Your task to perform on an android device: open app "Speedtest by Ookla" (install if not already installed) and go to login screen Image 0: 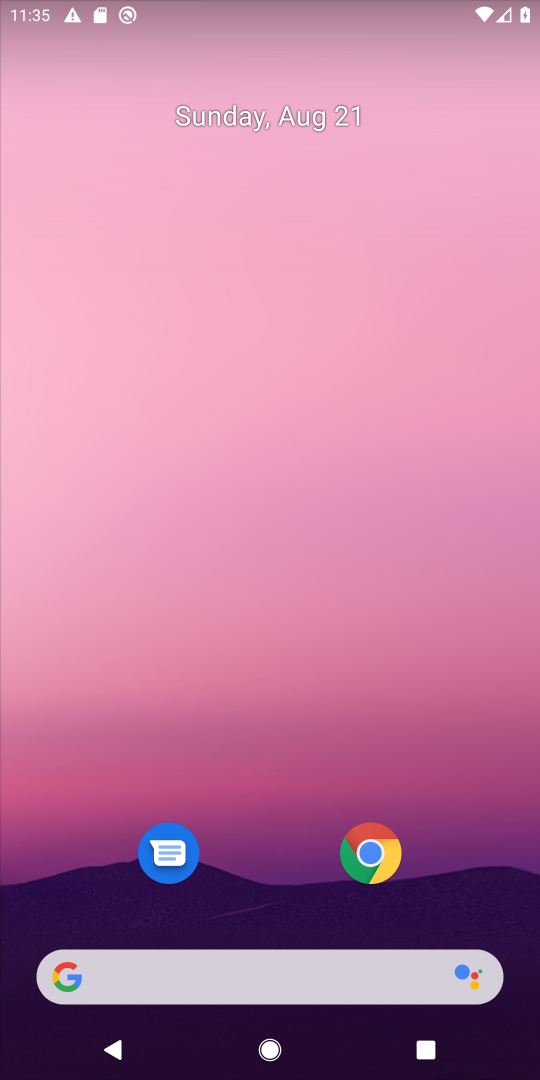
Step 0: drag from (274, 865) to (283, 236)
Your task to perform on an android device: open app "Speedtest by Ookla" (install if not already installed) and go to login screen Image 1: 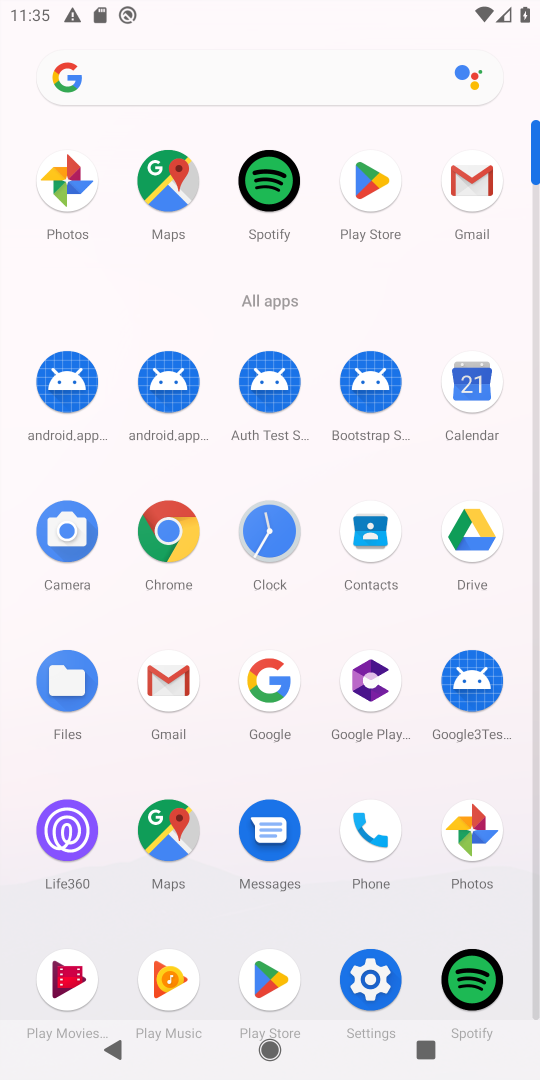
Step 1: click (361, 172)
Your task to perform on an android device: open app "Speedtest by Ookla" (install if not already installed) and go to login screen Image 2: 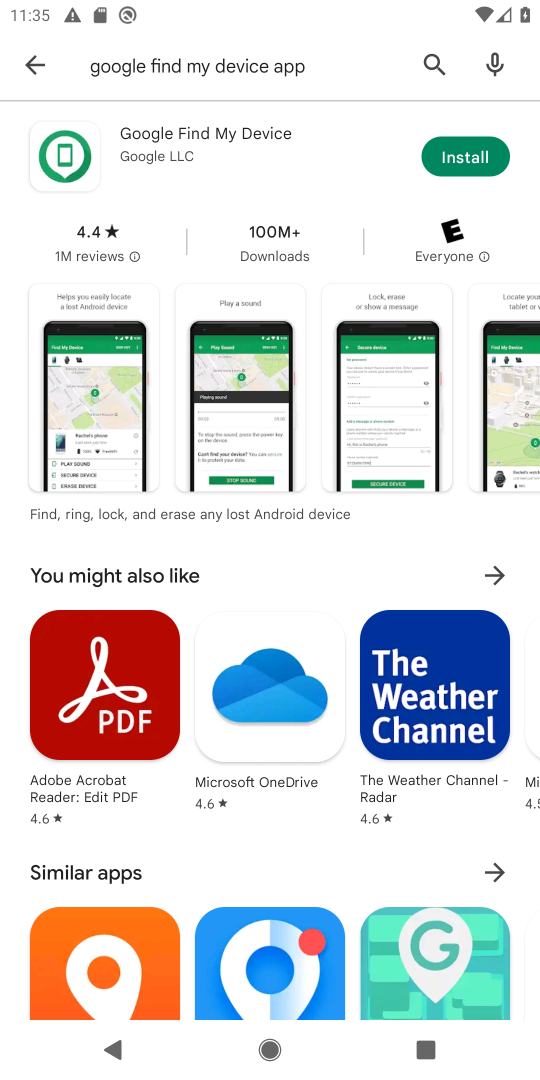
Step 2: click (45, 58)
Your task to perform on an android device: open app "Speedtest by Ookla" (install if not already installed) and go to login screen Image 3: 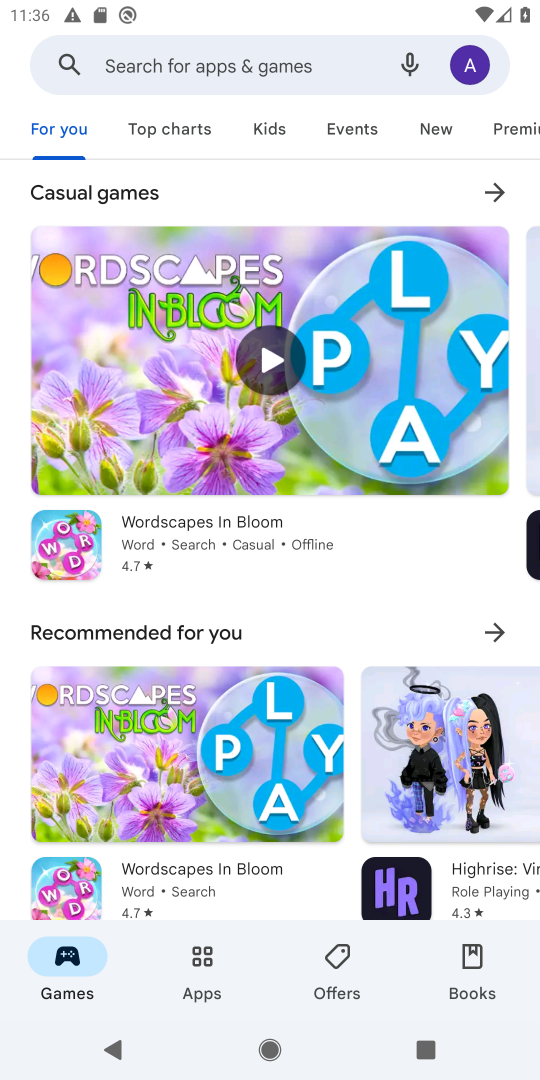
Step 3: click (255, 53)
Your task to perform on an android device: open app "Speedtest by Ookla" (install if not already installed) and go to login screen Image 4: 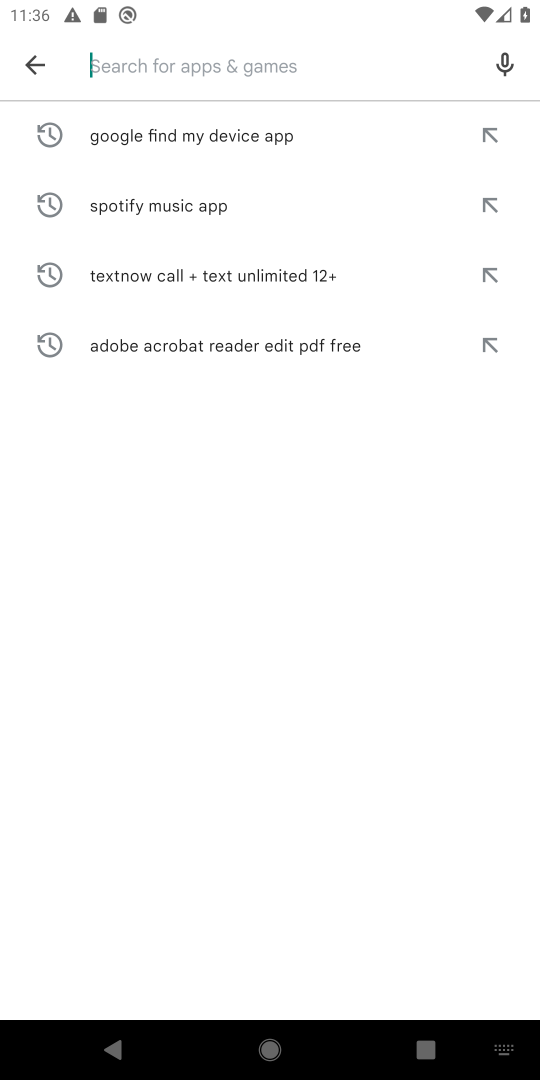
Step 4: type "Speedtest by Ookla "
Your task to perform on an android device: open app "Speedtest by Ookla" (install if not already installed) and go to login screen Image 5: 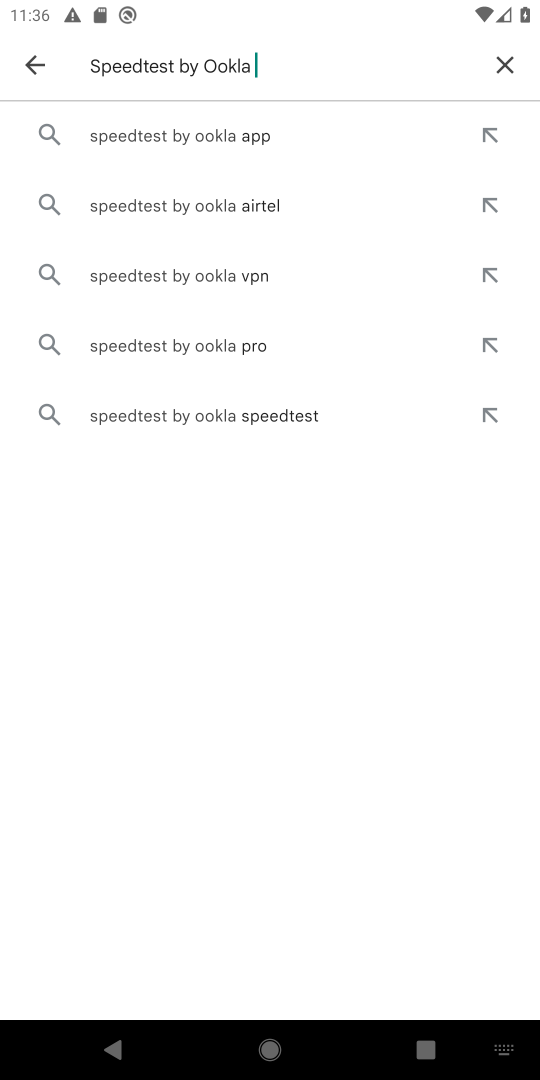
Step 5: click (226, 125)
Your task to perform on an android device: open app "Speedtest by Ookla" (install if not already installed) and go to login screen Image 6: 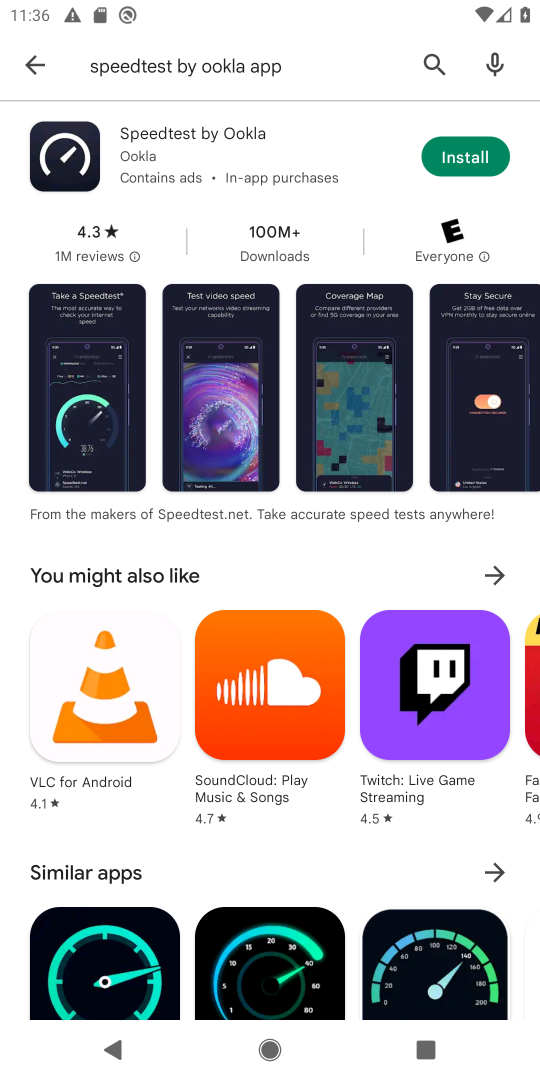
Step 6: click (459, 142)
Your task to perform on an android device: open app "Speedtest by Ookla" (install if not already installed) and go to login screen Image 7: 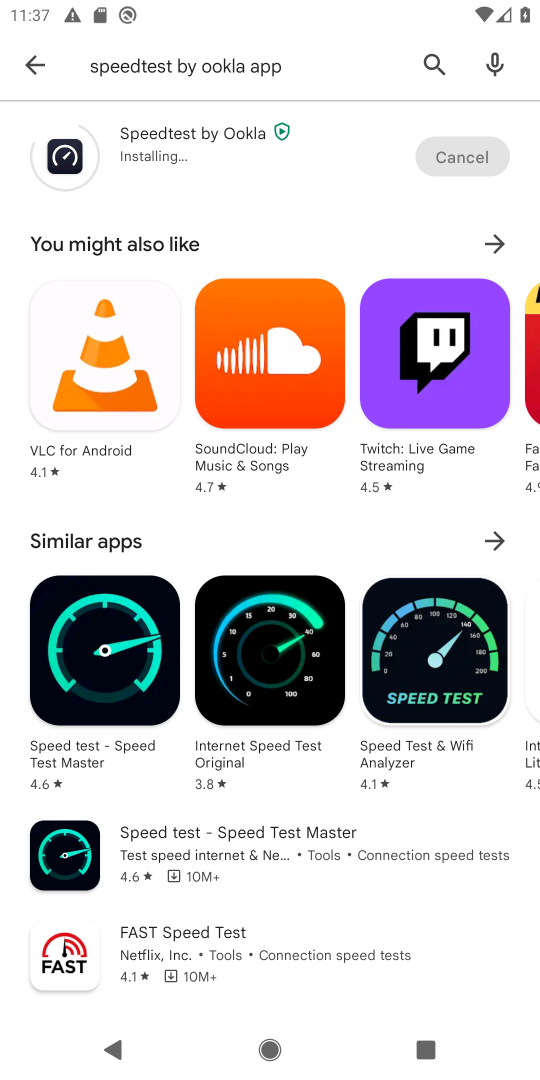
Step 7: task complete